Your task to perform on an android device: change the clock display to analog Image 0: 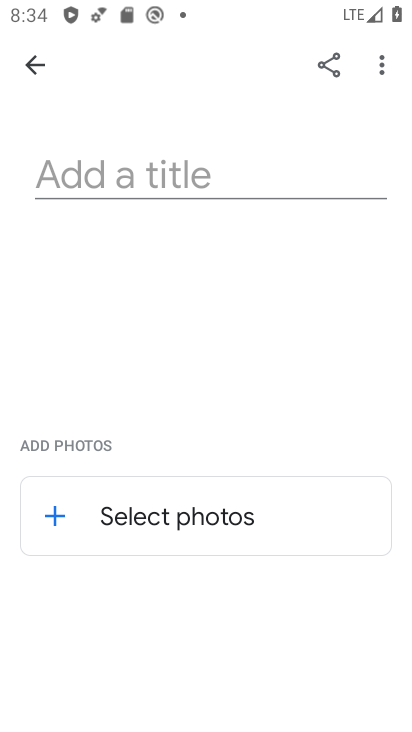
Step 0: press home button
Your task to perform on an android device: change the clock display to analog Image 1: 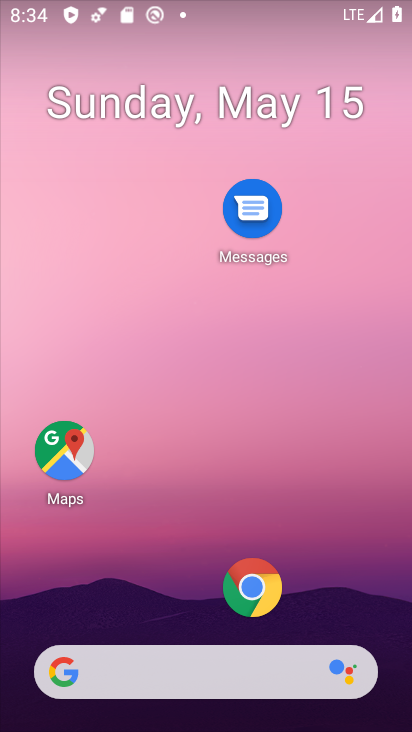
Step 1: drag from (138, 592) to (150, 234)
Your task to perform on an android device: change the clock display to analog Image 2: 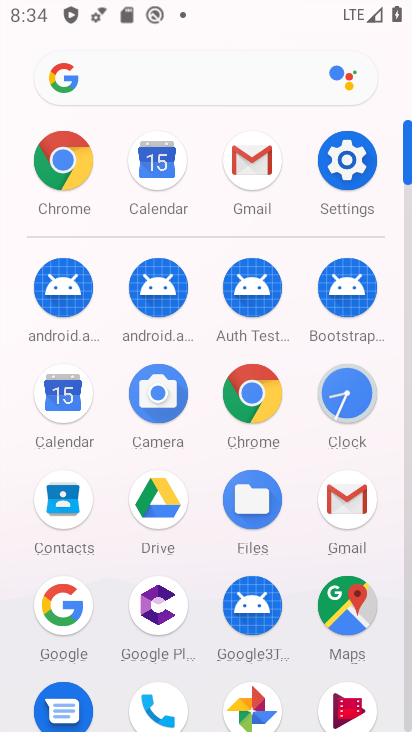
Step 2: click (350, 400)
Your task to perform on an android device: change the clock display to analog Image 3: 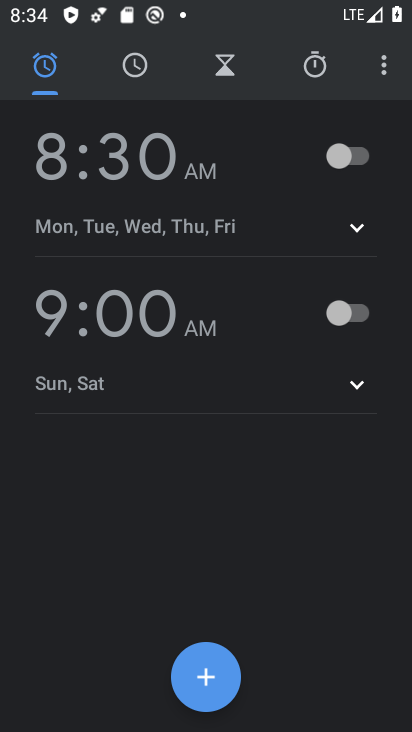
Step 3: click (383, 71)
Your task to perform on an android device: change the clock display to analog Image 4: 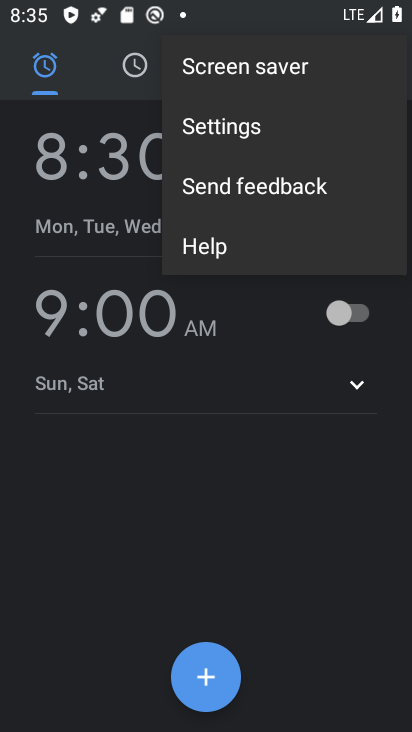
Step 4: click (240, 142)
Your task to perform on an android device: change the clock display to analog Image 5: 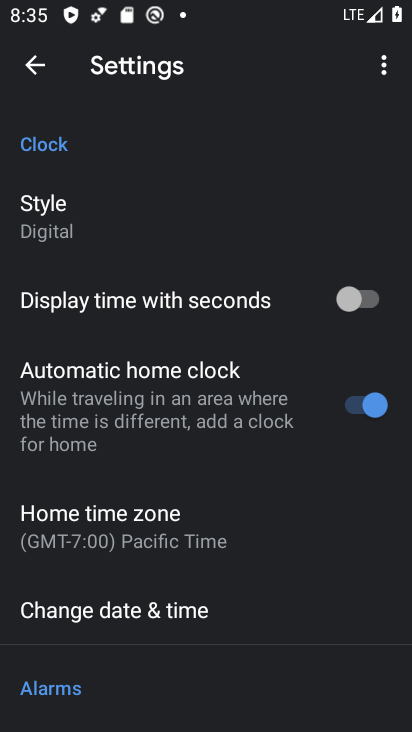
Step 5: drag from (194, 641) to (192, 413)
Your task to perform on an android device: change the clock display to analog Image 6: 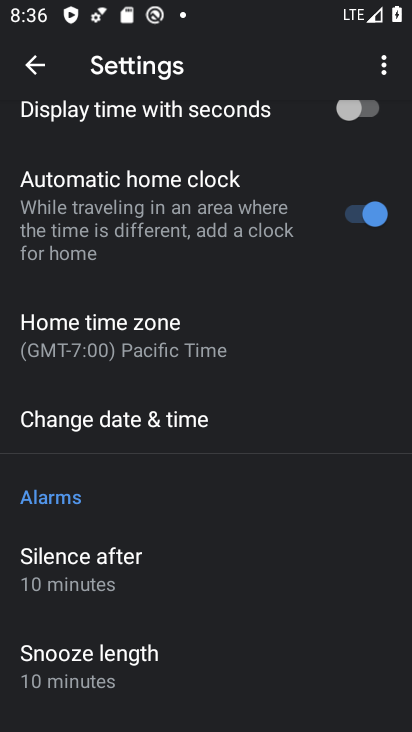
Step 6: drag from (212, 463) to (254, 258)
Your task to perform on an android device: change the clock display to analog Image 7: 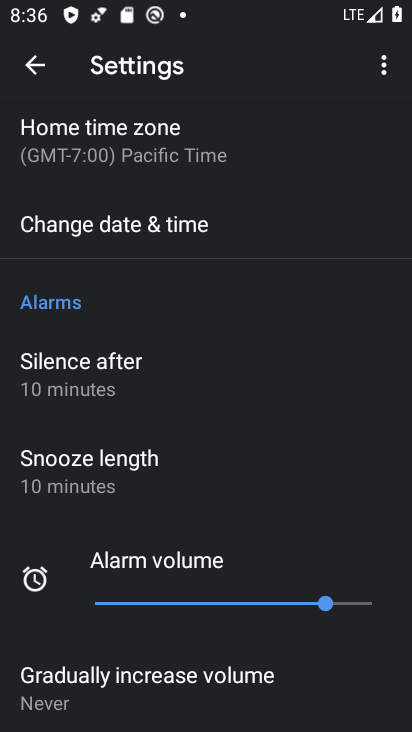
Step 7: drag from (199, 201) to (238, 453)
Your task to perform on an android device: change the clock display to analog Image 8: 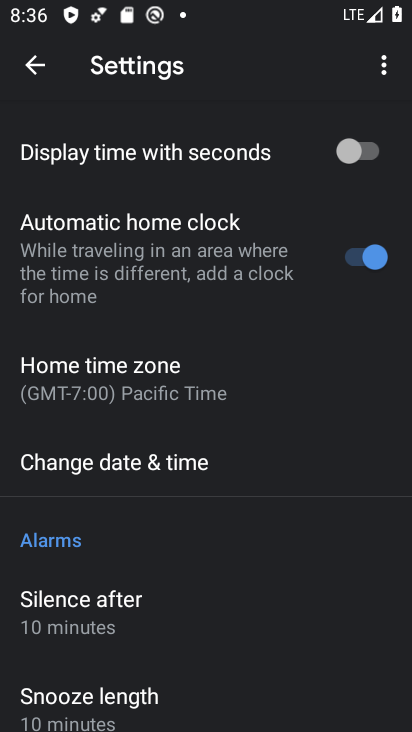
Step 8: drag from (199, 444) to (248, 220)
Your task to perform on an android device: change the clock display to analog Image 9: 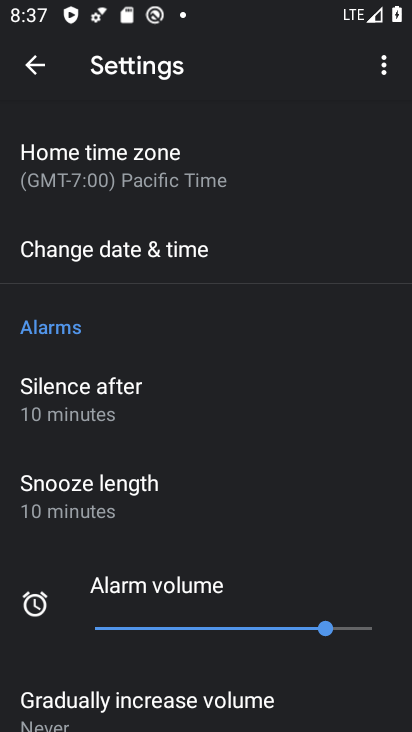
Step 9: drag from (187, 269) to (230, 613)
Your task to perform on an android device: change the clock display to analog Image 10: 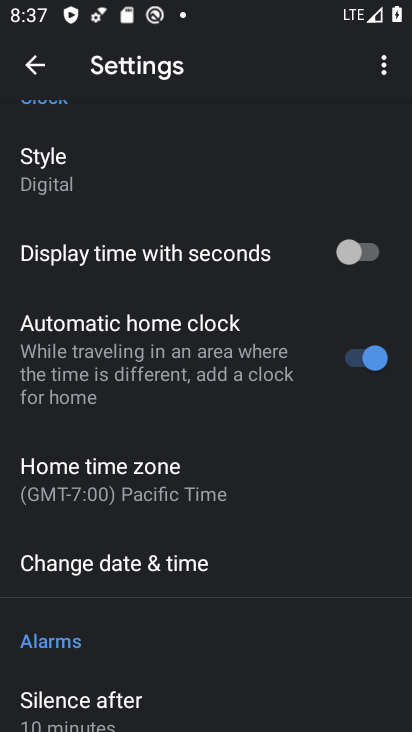
Step 10: drag from (180, 178) to (159, 449)
Your task to perform on an android device: change the clock display to analog Image 11: 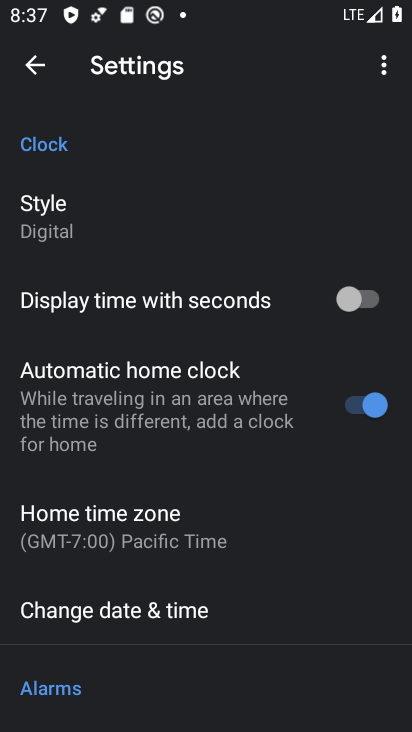
Step 11: click (76, 216)
Your task to perform on an android device: change the clock display to analog Image 12: 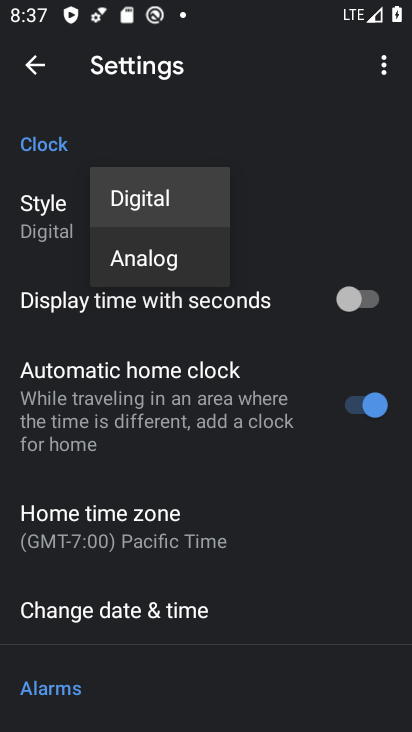
Step 12: click (131, 254)
Your task to perform on an android device: change the clock display to analog Image 13: 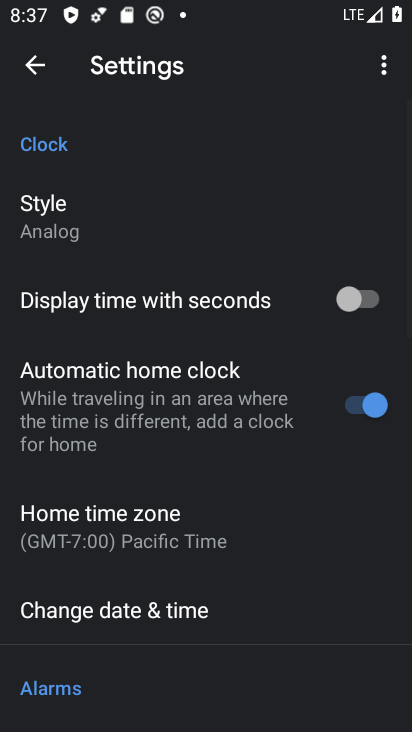
Step 13: task complete